Your task to perform on an android device: remove spam from my inbox in the gmail app Image 0: 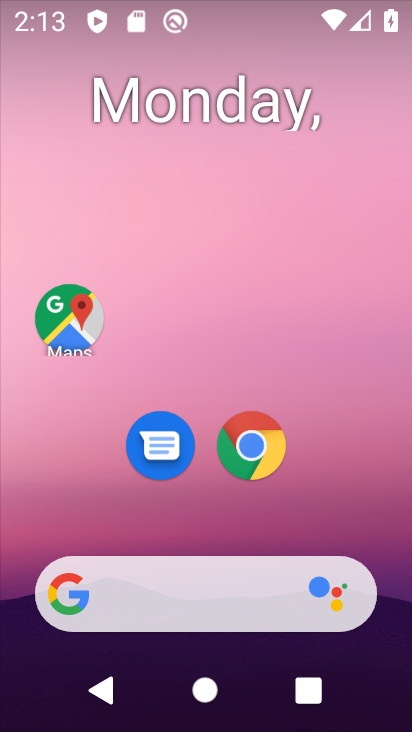
Step 0: drag from (341, 390) to (265, 38)
Your task to perform on an android device: remove spam from my inbox in the gmail app Image 1: 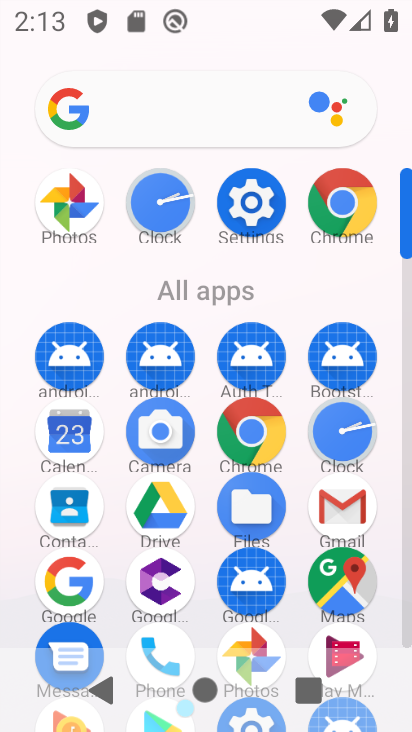
Step 1: drag from (12, 566) to (12, 260)
Your task to perform on an android device: remove spam from my inbox in the gmail app Image 2: 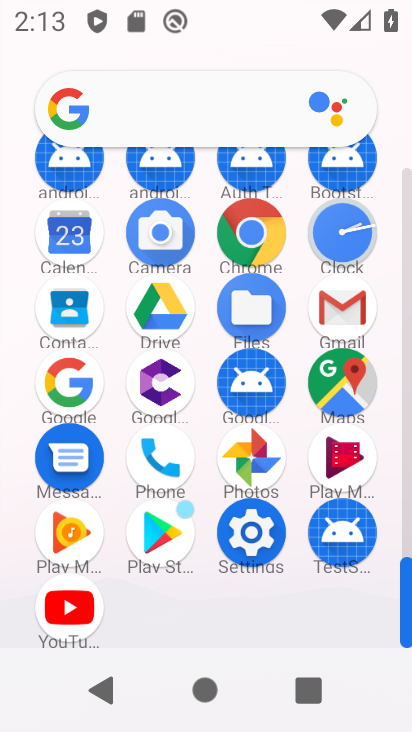
Step 2: click (341, 304)
Your task to perform on an android device: remove spam from my inbox in the gmail app Image 3: 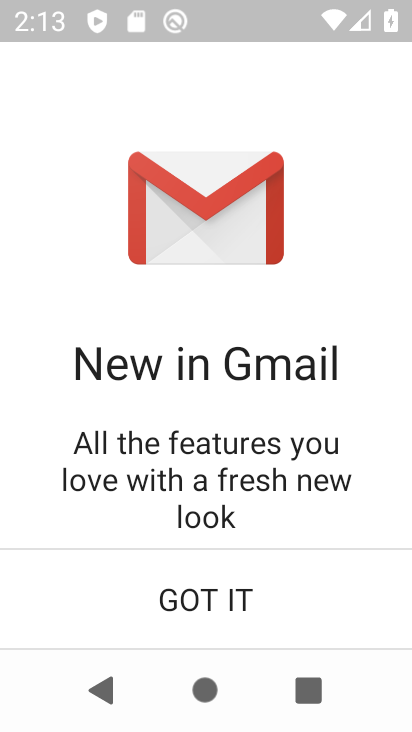
Step 3: click (192, 578)
Your task to perform on an android device: remove spam from my inbox in the gmail app Image 4: 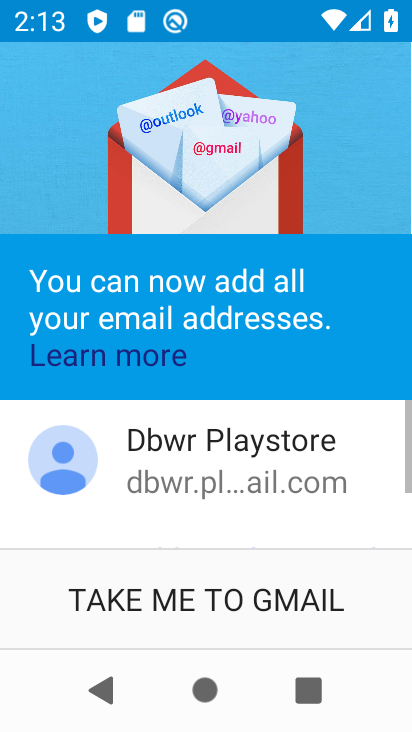
Step 4: click (197, 578)
Your task to perform on an android device: remove spam from my inbox in the gmail app Image 5: 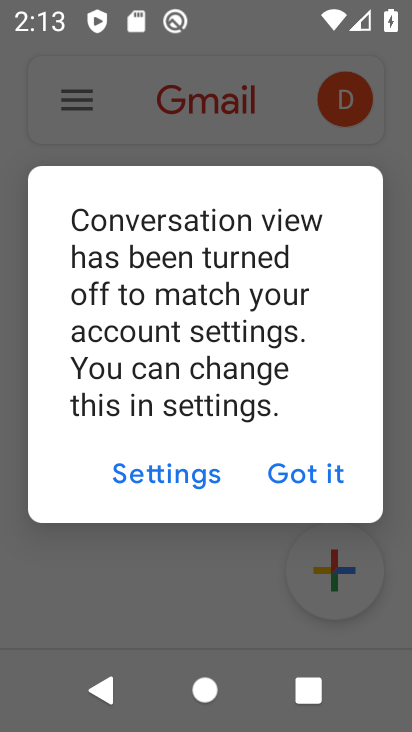
Step 5: click (319, 479)
Your task to perform on an android device: remove spam from my inbox in the gmail app Image 6: 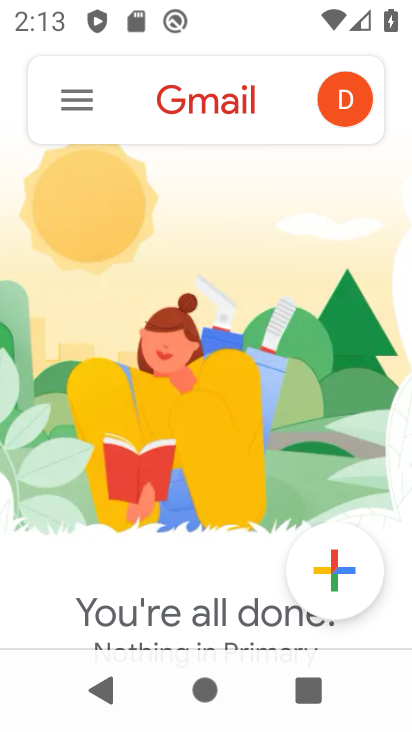
Step 6: click (74, 99)
Your task to perform on an android device: remove spam from my inbox in the gmail app Image 7: 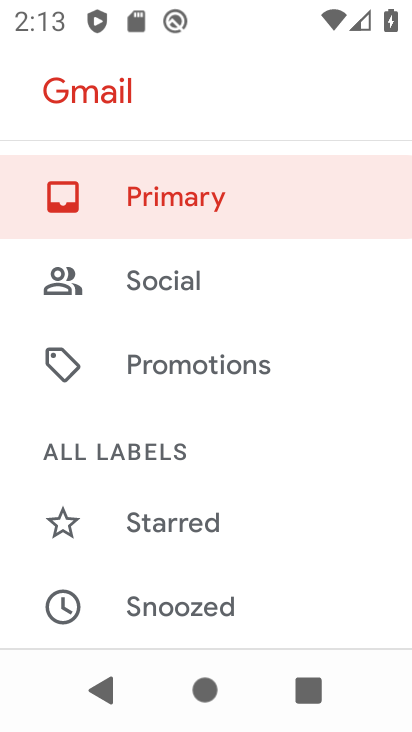
Step 7: drag from (177, 547) to (250, 137)
Your task to perform on an android device: remove spam from my inbox in the gmail app Image 8: 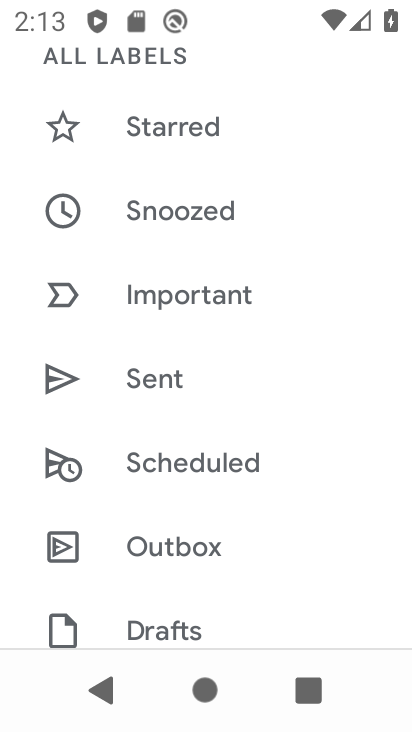
Step 8: drag from (235, 553) to (270, 137)
Your task to perform on an android device: remove spam from my inbox in the gmail app Image 9: 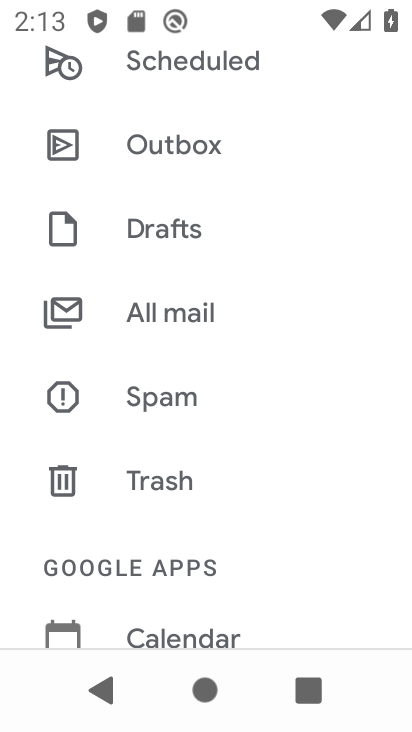
Step 9: drag from (221, 563) to (226, 53)
Your task to perform on an android device: remove spam from my inbox in the gmail app Image 10: 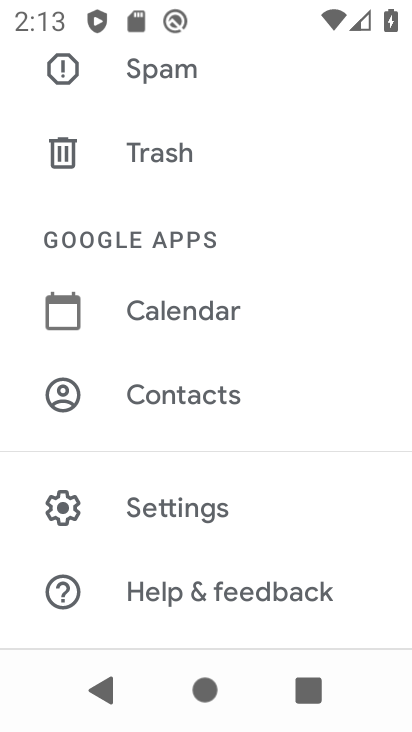
Step 10: drag from (210, 591) to (238, 233)
Your task to perform on an android device: remove spam from my inbox in the gmail app Image 11: 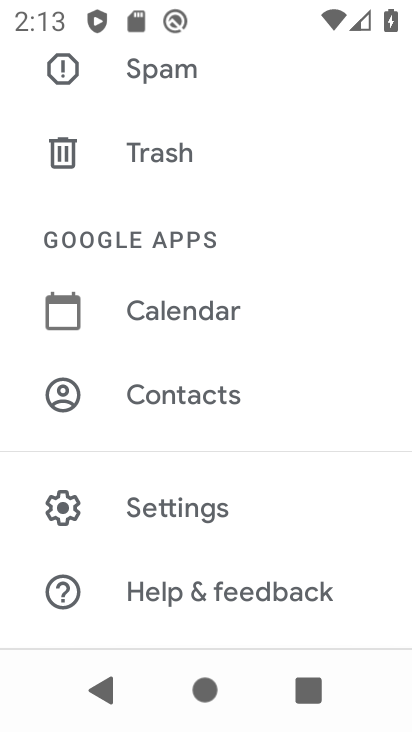
Step 11: click (175, 496)
Your task to perform on an android device: remove spam from my inbox in the gmail app Image 12: 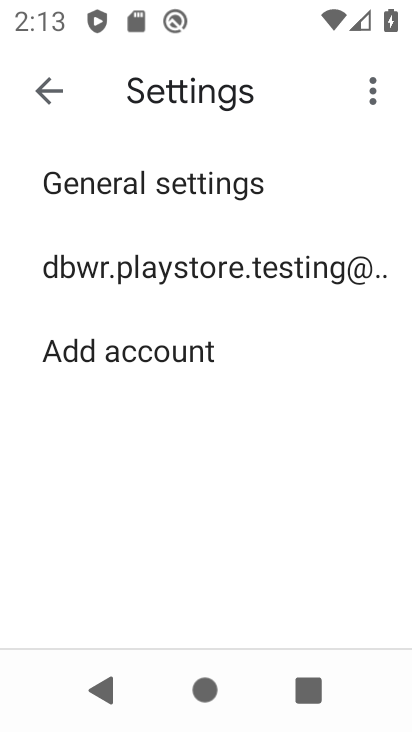
Step 12: click (35, 76)
Your task to perform on an android device: remove spam from my inbox in the gmail app Image 13: 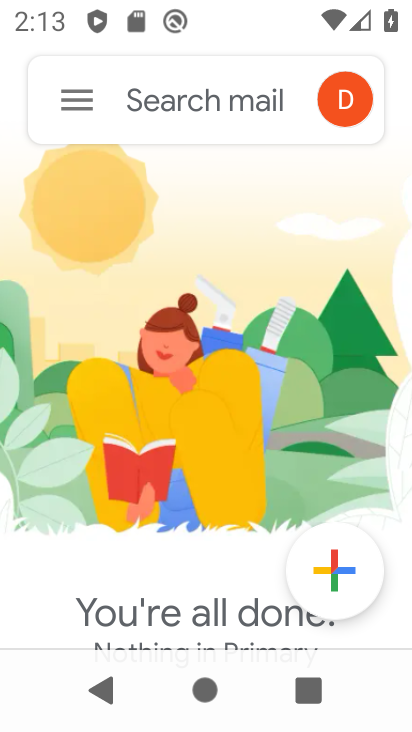
Step 13: click (59, 86)
Your task to perform on an android device: remove spam from my inbox in the gmail app Image 14: 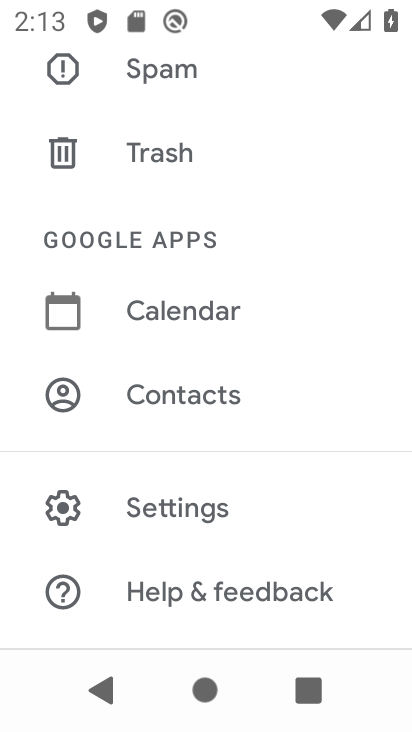
Step 14: drag from (228, 510) to (236, 79)
Your task to perform on an android device: remove spam from my inbox in the gmail app Image 15: 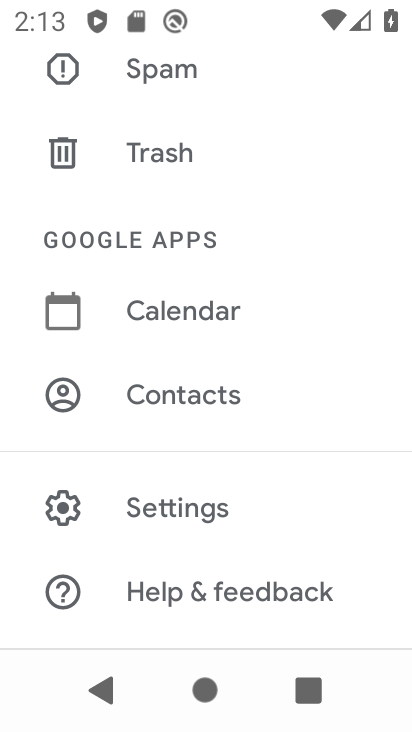
Step 15: click (193, 73)
Your task to perform on an android device: remove spam from my inbox in the gmail app Image 16: 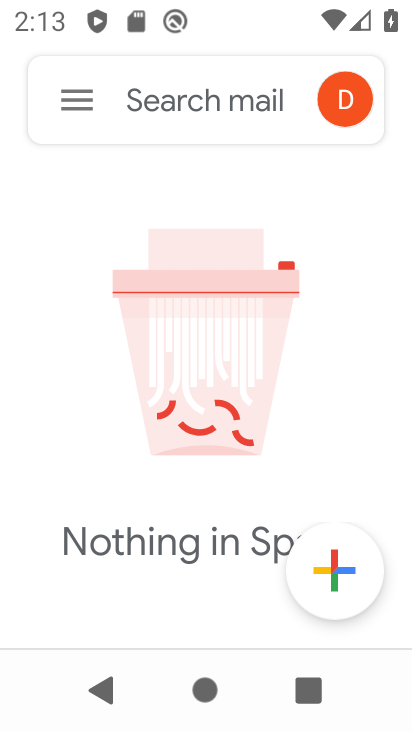
Step 16: task complete